Your task to perform on an android device: What's the weather going to be this weekend? Image 0: 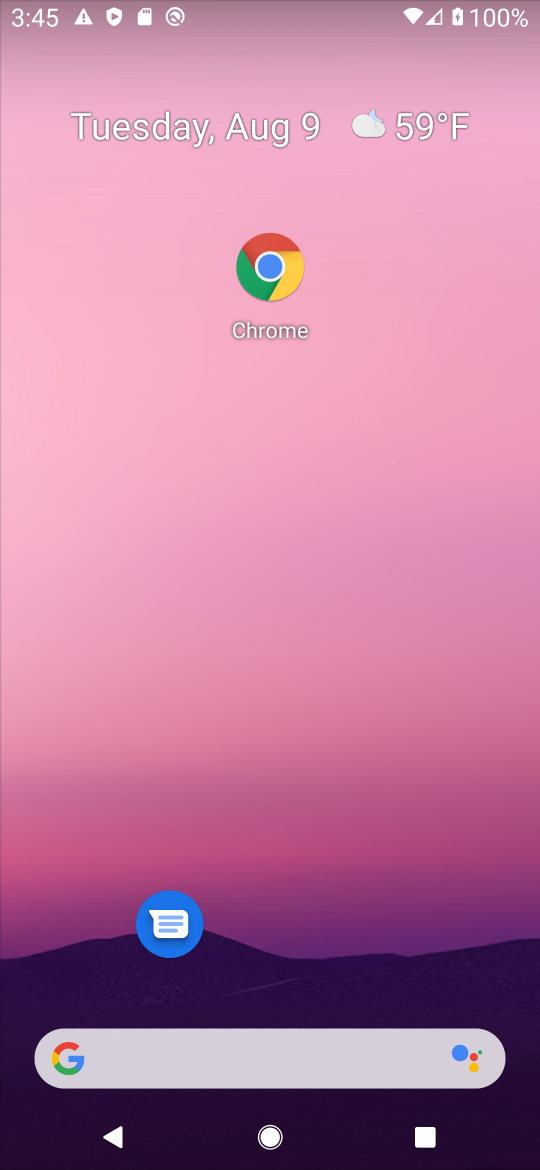
Step 0: press back button
Your task to perform on an android device: What's the weather going to be this weekend? Image 1: 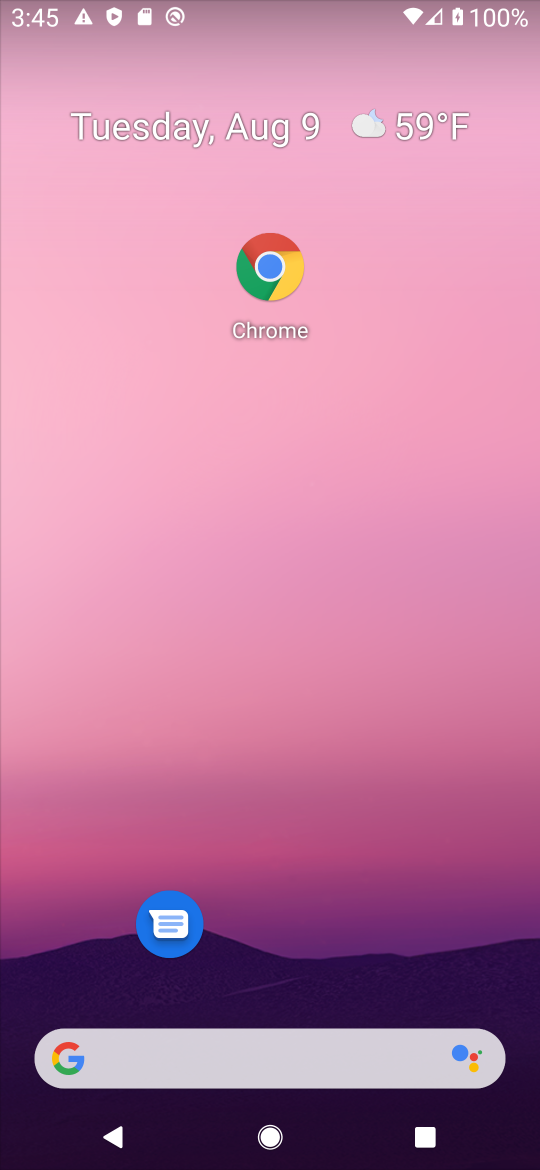
Step 1: drag from (181, 839) to (320, 254)
Your task to perform on an android device: What's the weather going to be this weekend? Image 2: 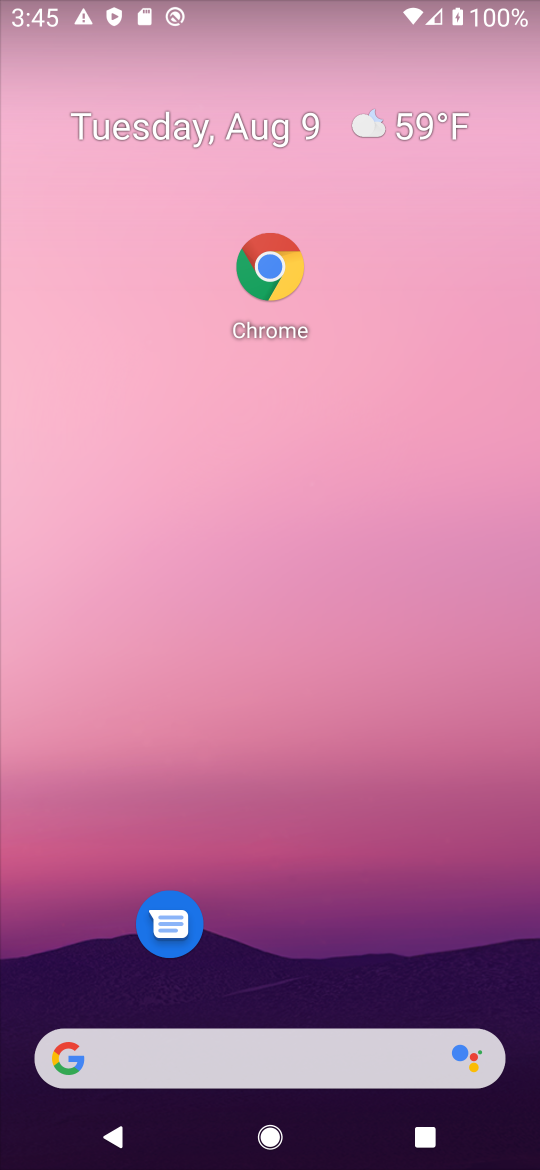
Step 2: drag from (206, 561) to (143, 250)
Your task to perform on an android device: What's the weather going to be this weekend? Image 3: 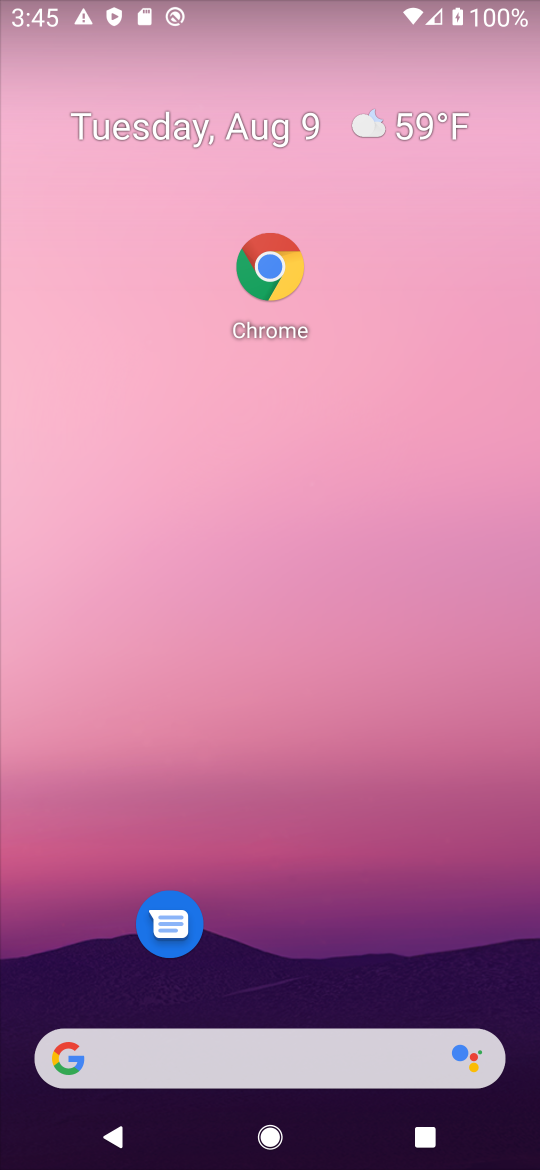
Step 3: click (362, 116)
Your task to perform on an android device: What's the weather going to be this weekend? Image 4: 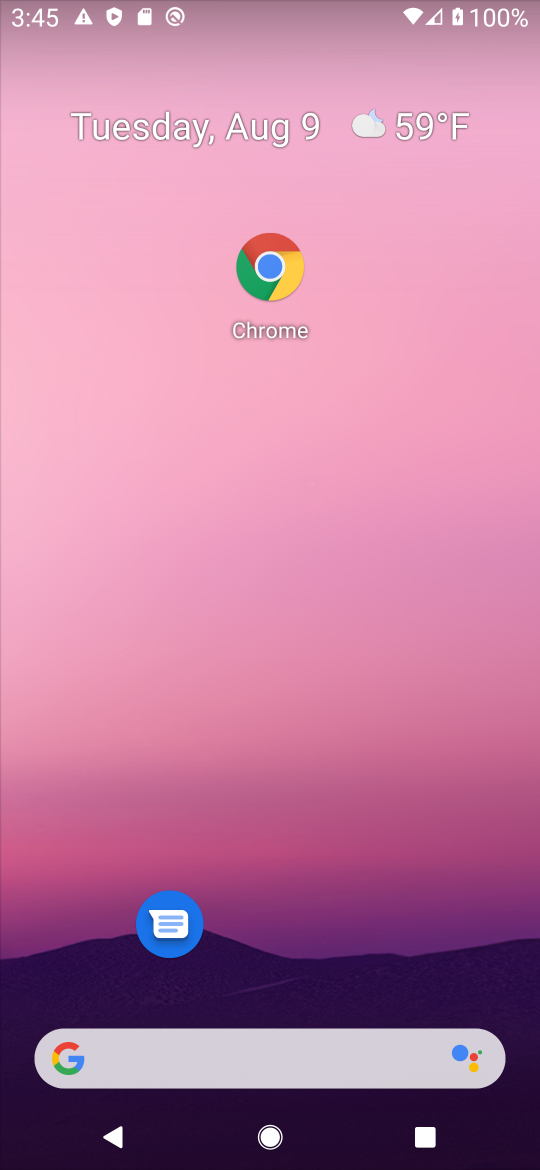
Step 4: click (381, 146)
Your task to perform on an android device: What's the weather going to be this weekend? Image 5: 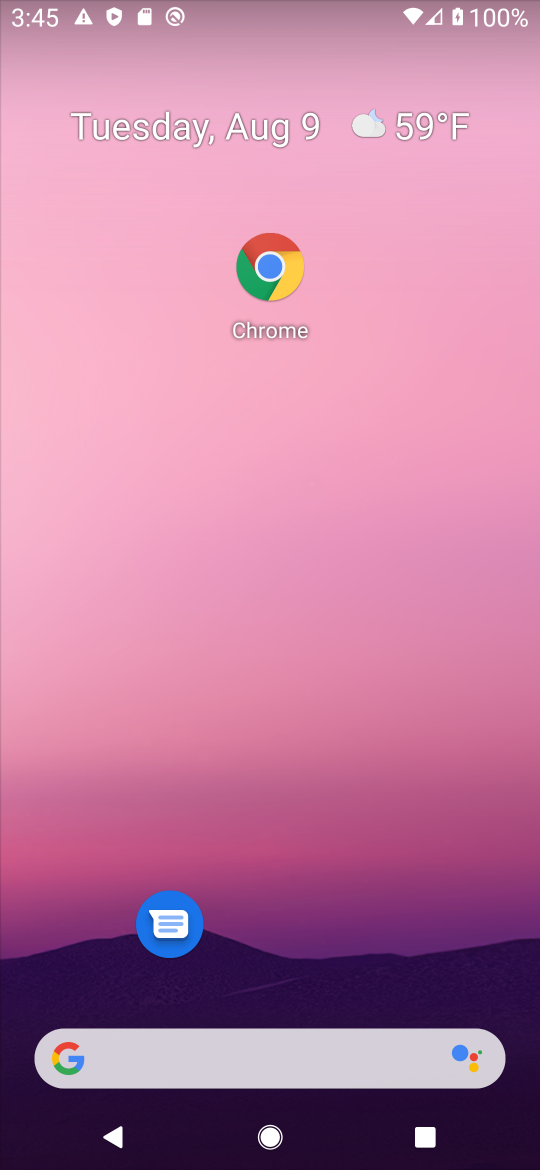
Step 5: click (376, 133)
Your task to perform on an android device: What's the weather going to be this weekend? Image 6: 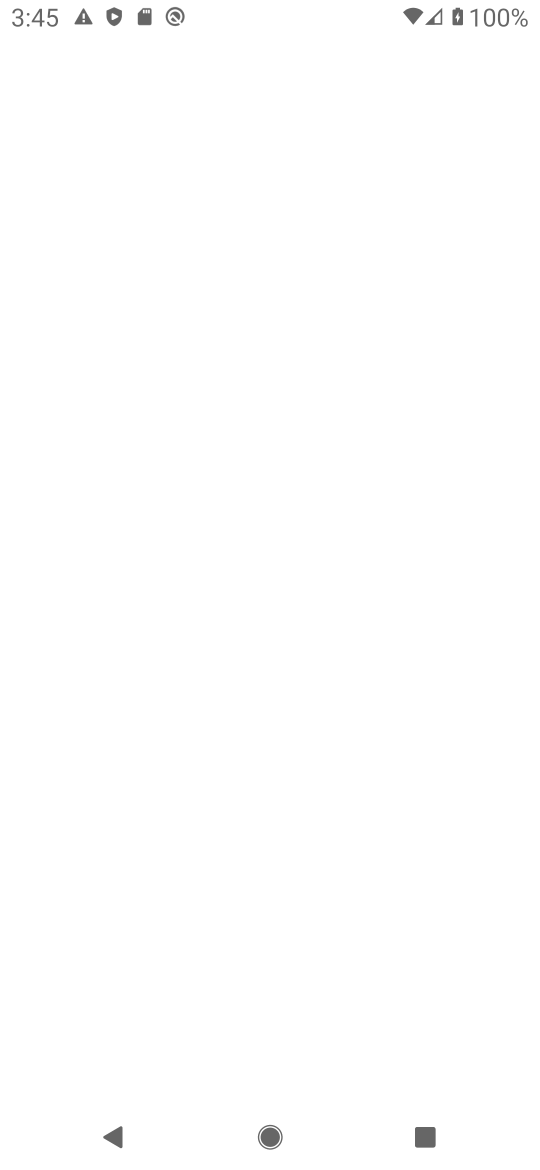
Step 6: click (382, 133)
Your task to perform on an android device: What's the weather going to be this weekend? Image 7: 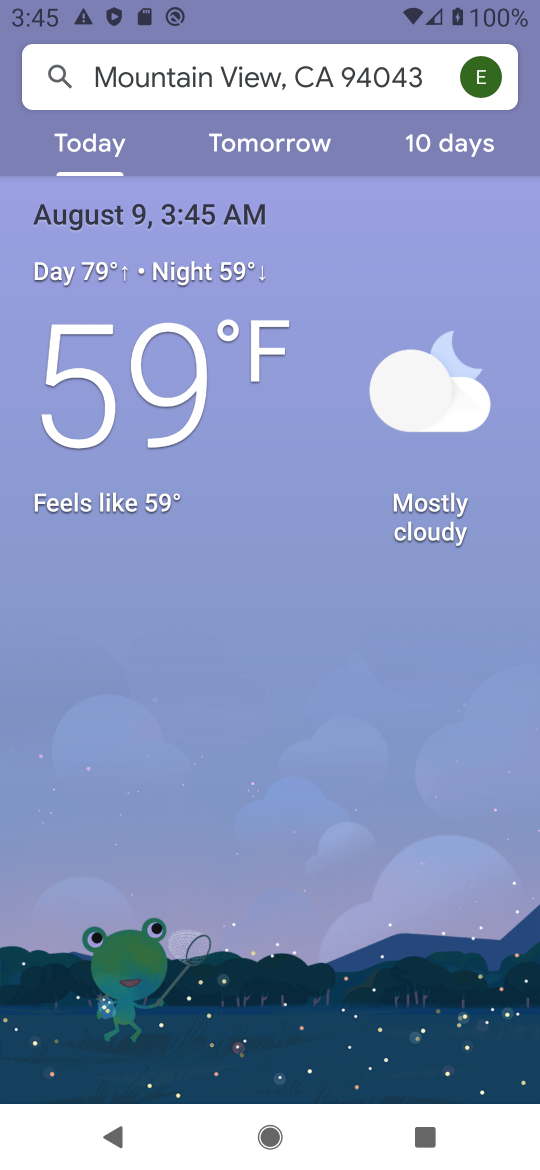
Step 7: drag from (236, 723) to (132, 124)
Your task to perform on an android device: What's the weather going to be this weekend? Image 8: 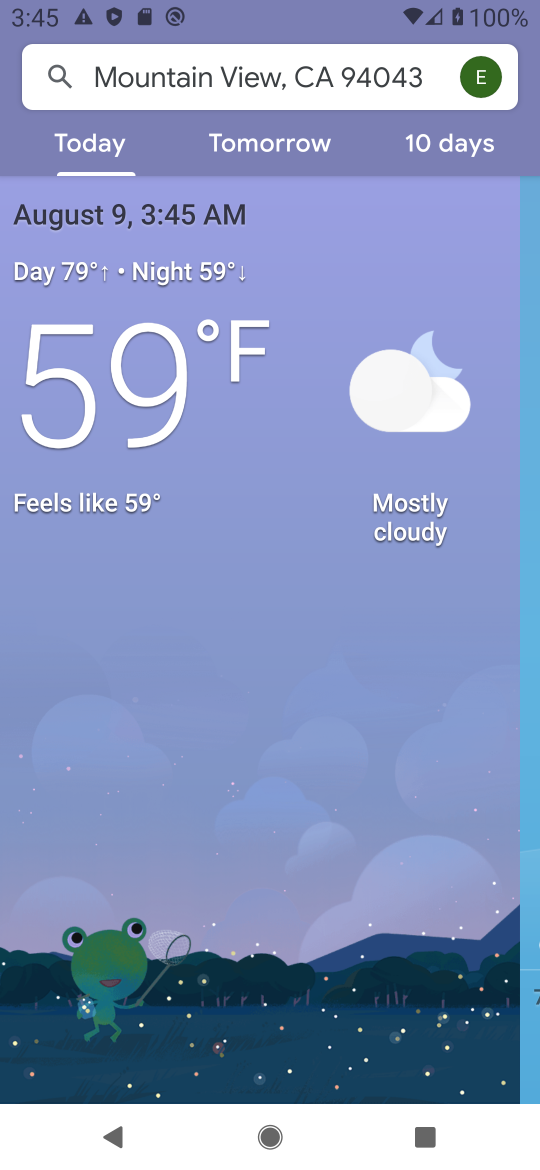
Step 8: click (102, 233)
Your task to perform on an android device: What's the weather going to be this weekend? Image 9: 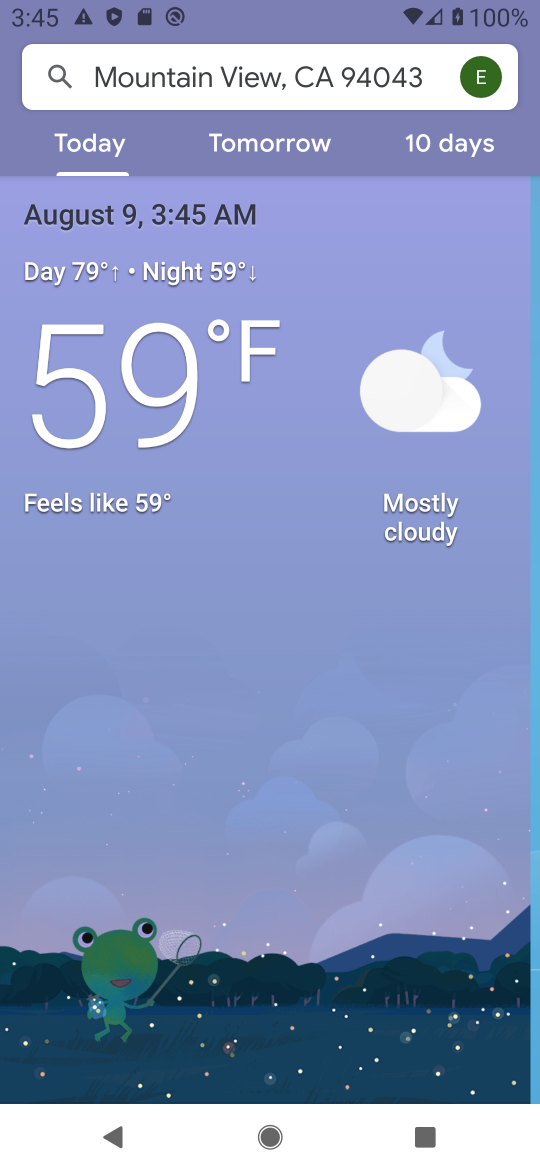
Step 9: drag from (228, 547) to (196, 260)
Your task to perform on an android device: What's the weather going to be this weekend? Image 10: 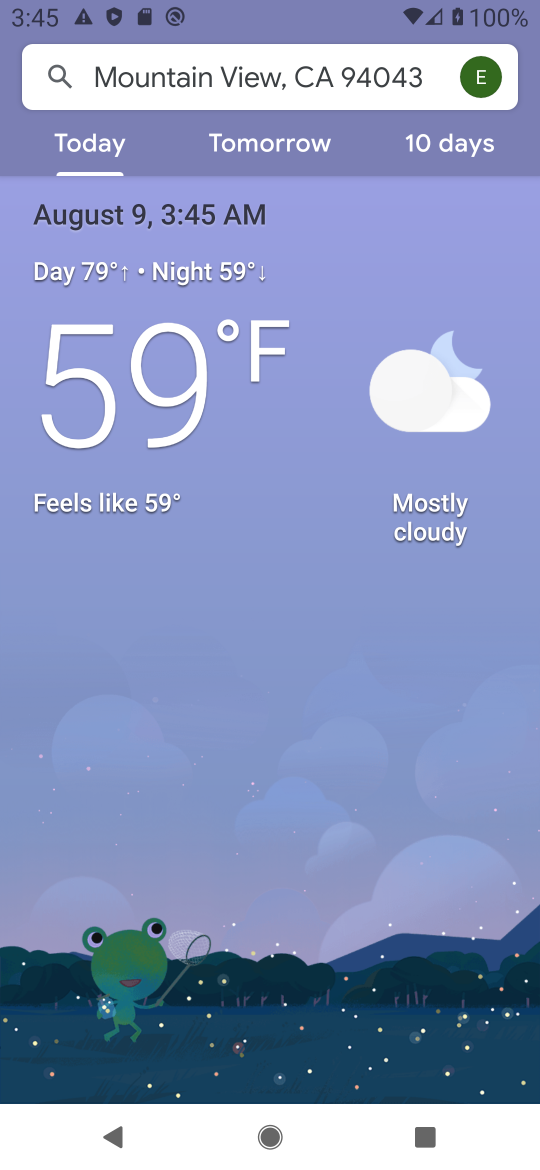
Step 10: click (436, 137)
Your task to perform on an android device: What's the weather going to be this weekend? Image 11: 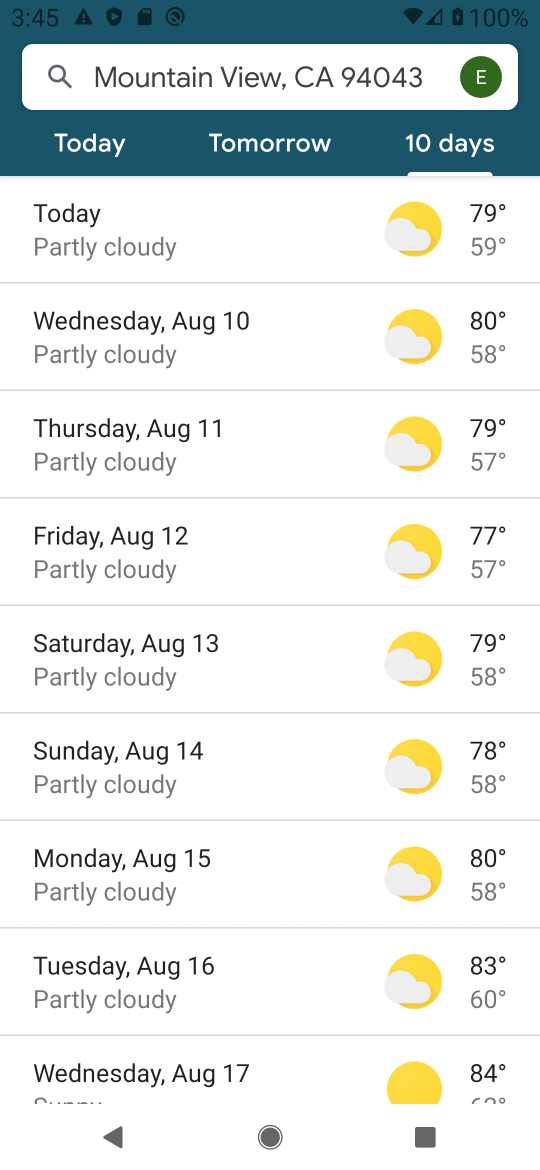
Step 11: task complete